Your task to perform on an android device: Clear the shopping cart on costco.com. Add "usb-c to usb-b" to the cart on costco.com Image 0: 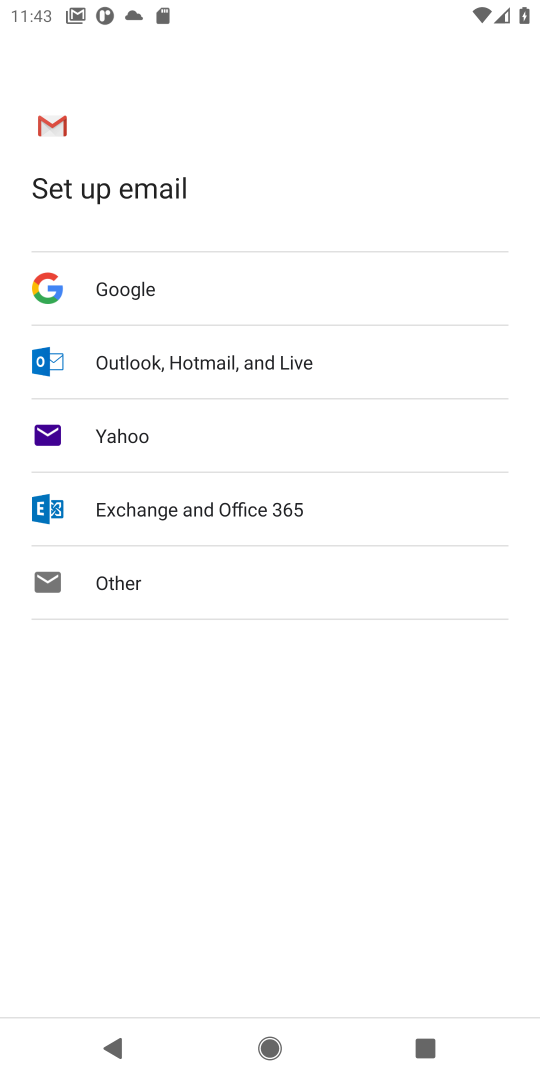
Step 0: press home button
Your task to perform on an android device: Clear the shopping cart on costco.com. Add "usb-c to usb-b" to the cart on costco.com Image 1: 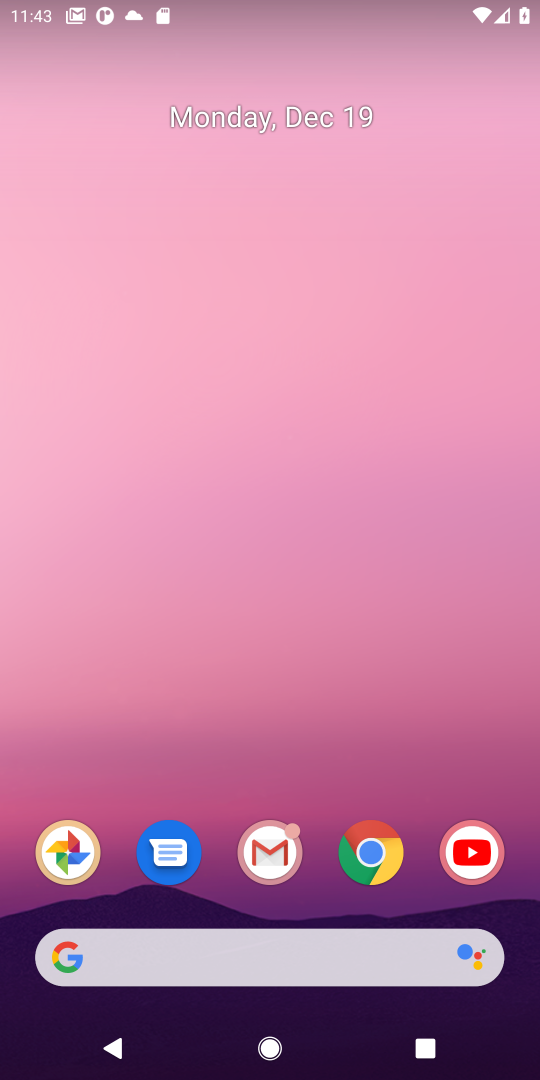
Step 1: click (368, 864)
Your task to perform on an android device: Clear the shopping cart on costco.com. Add "usb-c to usb-b" to the cart on costco.com Image 2: 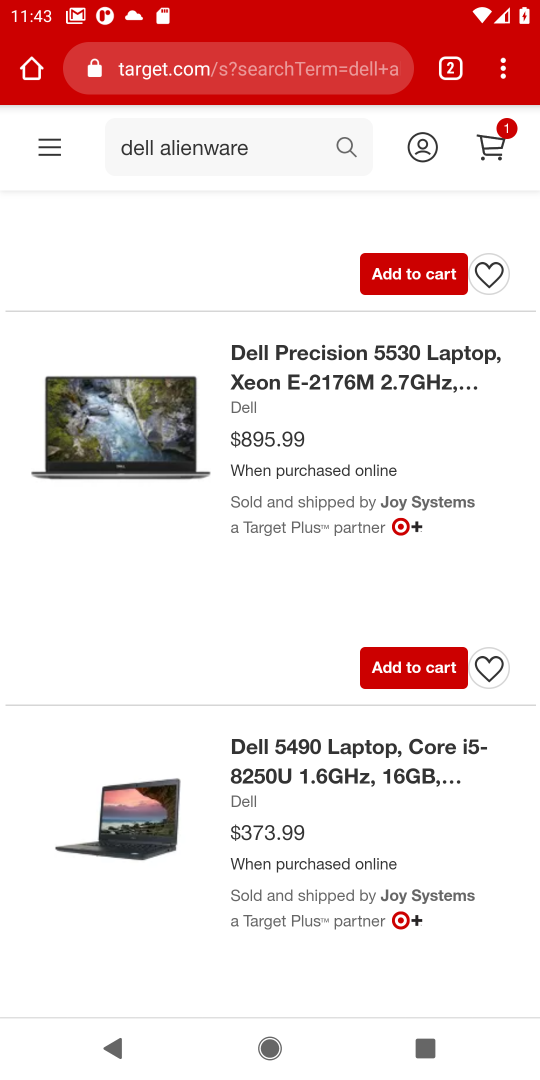
Step 2: click (200, 74)
Your task to perform on an android device: Clear the shopping cart on costco.com. Add "usb-c to usb-b" to the cart on costco.com Image 3: 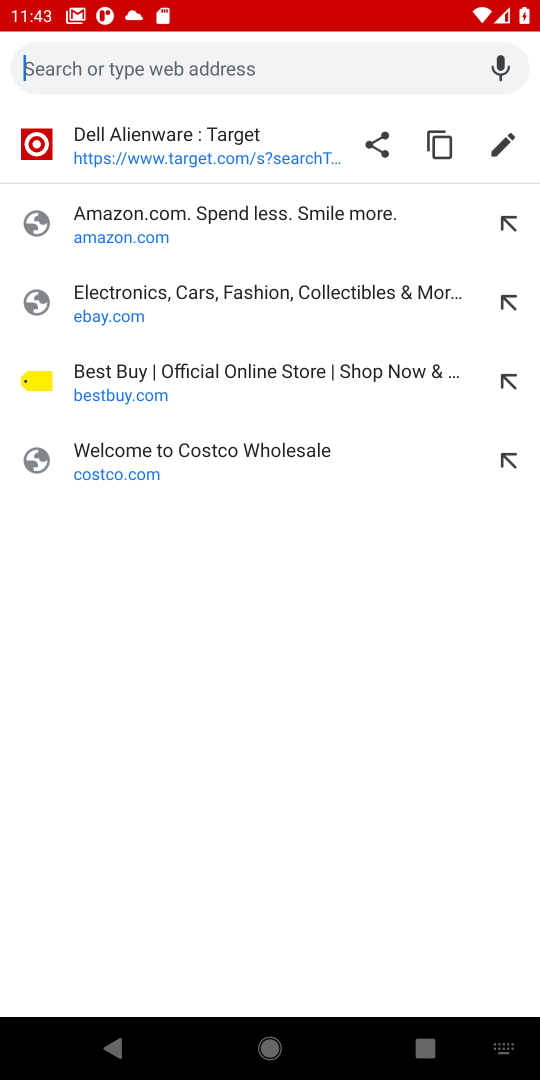
Step 3: click (109, 475)
Your task to perform on an android device: Clear the shopping cart on costco.com. Add "usb-c to usb-b" to the cart on costco.com Image 4: 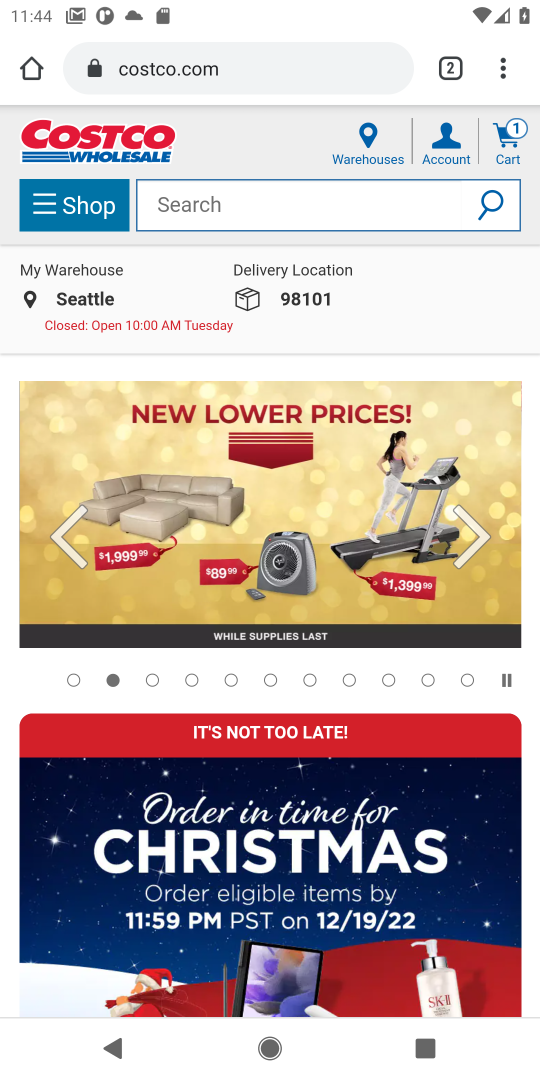
Step 4: click (502, 143)
Your task to perform on an android device: Clear the shopping cart on costco.com. Add "usb-c to usb-b" to the cart on costco.com Image 5: 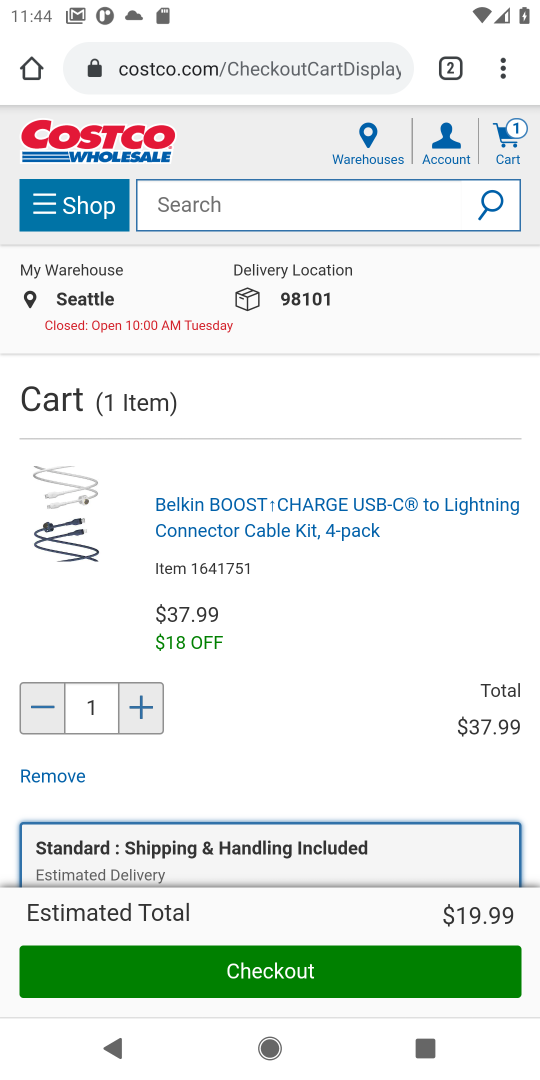
Step 5: drag from (364, 569) to (396, 180)
Your task to perform on an android device: Clear the shopping cart on costco.com. Add "usb-c to usb-b" to the cart on costco.com Image 6: 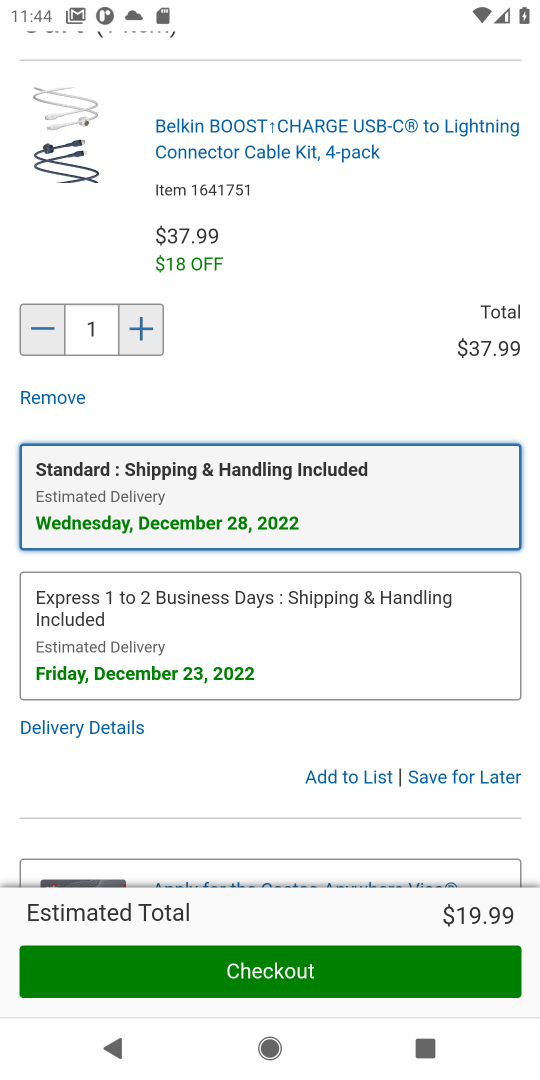
Step 6: click (448, 785)
Your task to perform on an android device: Clear the shopping cart on costco.com. Add "usb-c to usb-b" to the cart on costco.com Image 7: 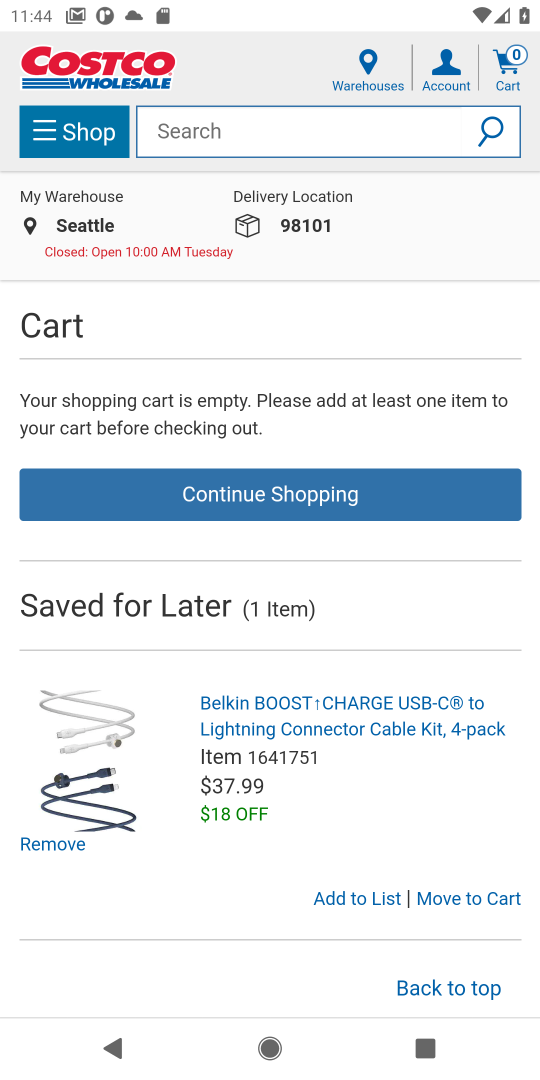
Step 7: click (181, 130)
Your task to perform on an android device: Clear the shopping cart on costco.com. Add "usb-c to usb-b" to the cart on costco.com Image 8: 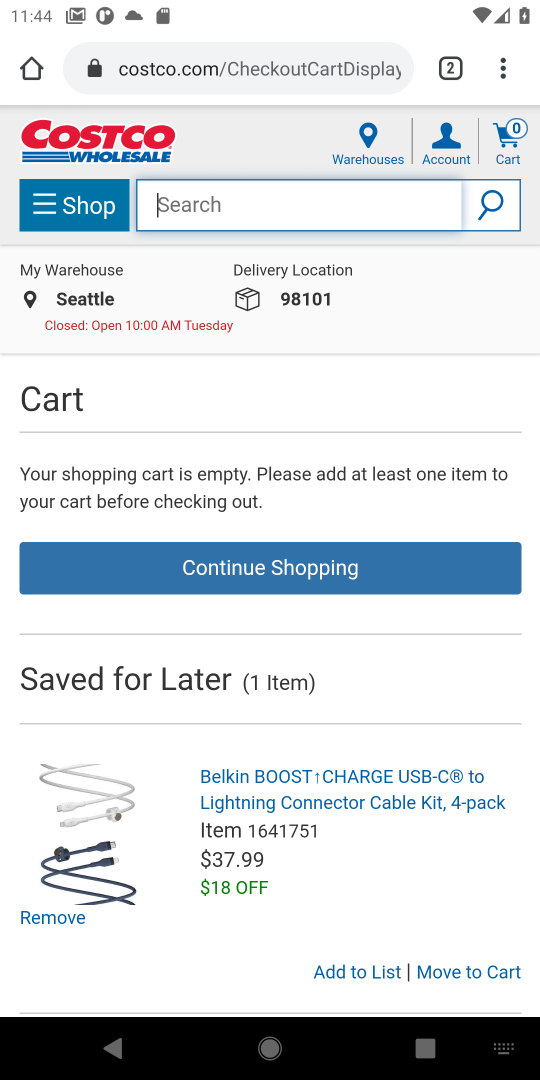
Step 8: type "usb-c to usb-b"
Your task to perform on an android device: Clear the shopping cart on costco.com. Add "usb-c to usb-b" to the cart on costco.com Image 9: 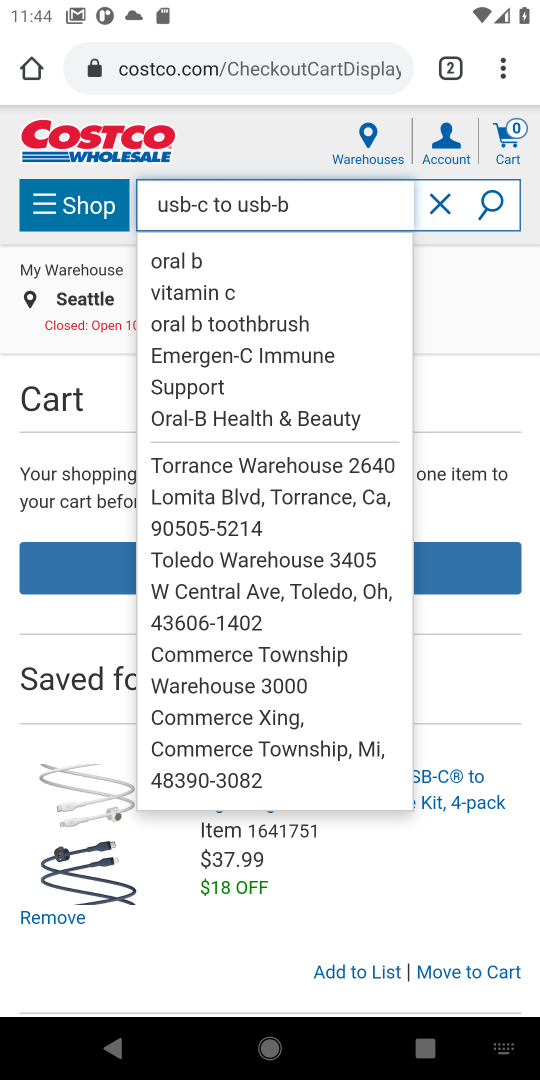
Step 9: click (489, 207)
Your task to perform on an android device: Clear the shopping cart on costco.com. Add "usb-c to usb-b" to the cart on costco.com Image 10: 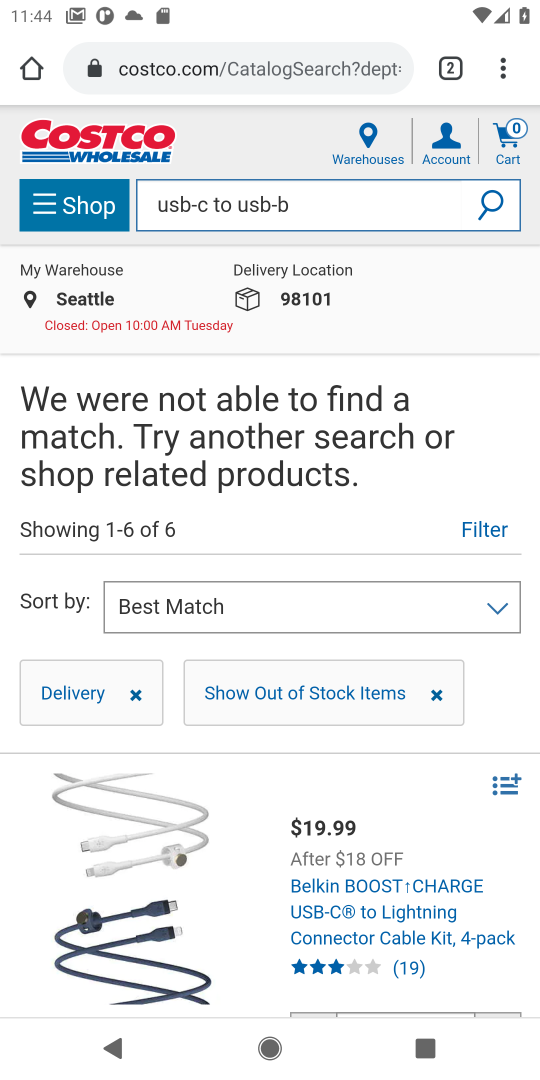
Step 10: task complete